Your task to perform on an android device: What is the recent news? Image 0: 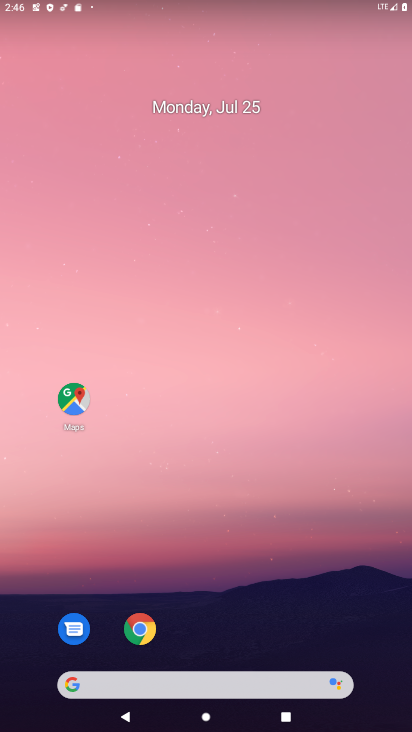
Step 0: drag from (188, 630) to (310, 50)
Your task to perform on an android device: What is the recent news? Image 1: 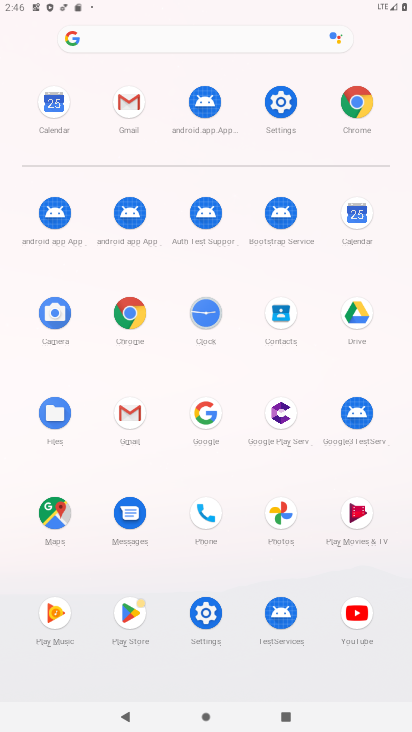
Step 1: click (136, 40)
Your task to perform on an android device: What is the recent news? Image 2: 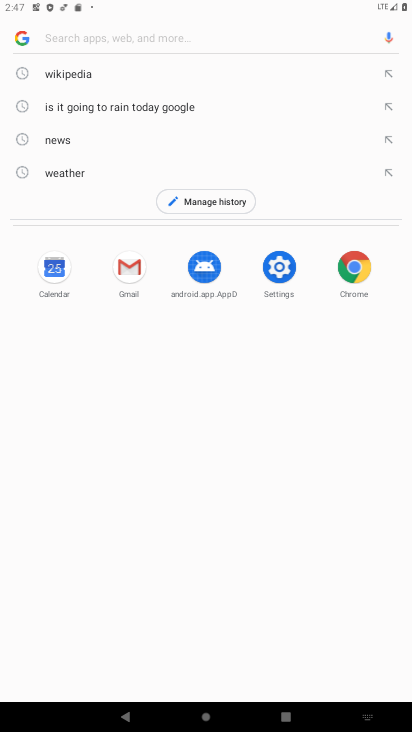
Step 2: type "recent news?"
Your task to perform on an android device: What is the recent news? Image 3: 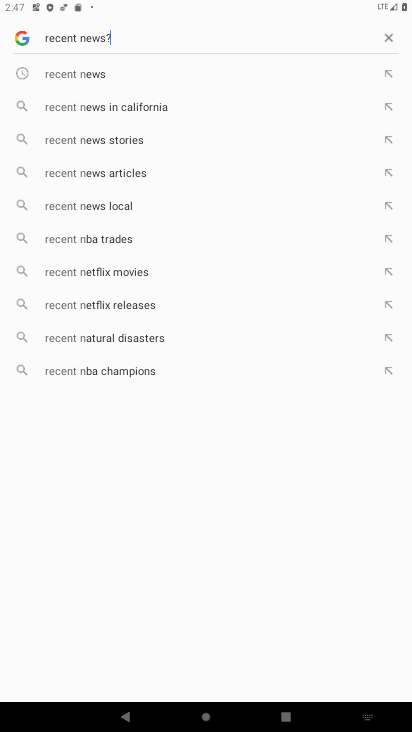
Step 3: type ""
Your task to perform on an android device: What is the recent news? Image 4: 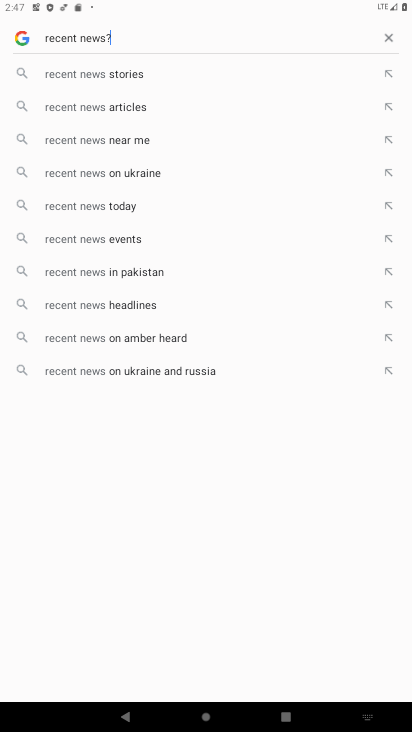
Step 4: click (107, 208)
Your task to perform on an android device: What is the recent news? Image 5: 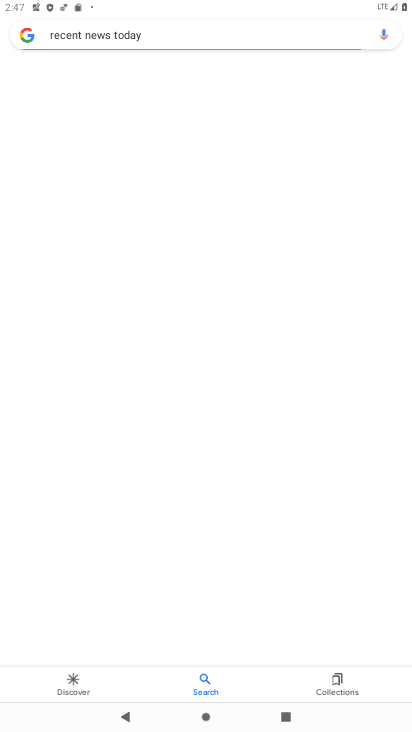
Step 5: task complete